Your task to perform on an android device: What's the price of the LG TV? Image 0: 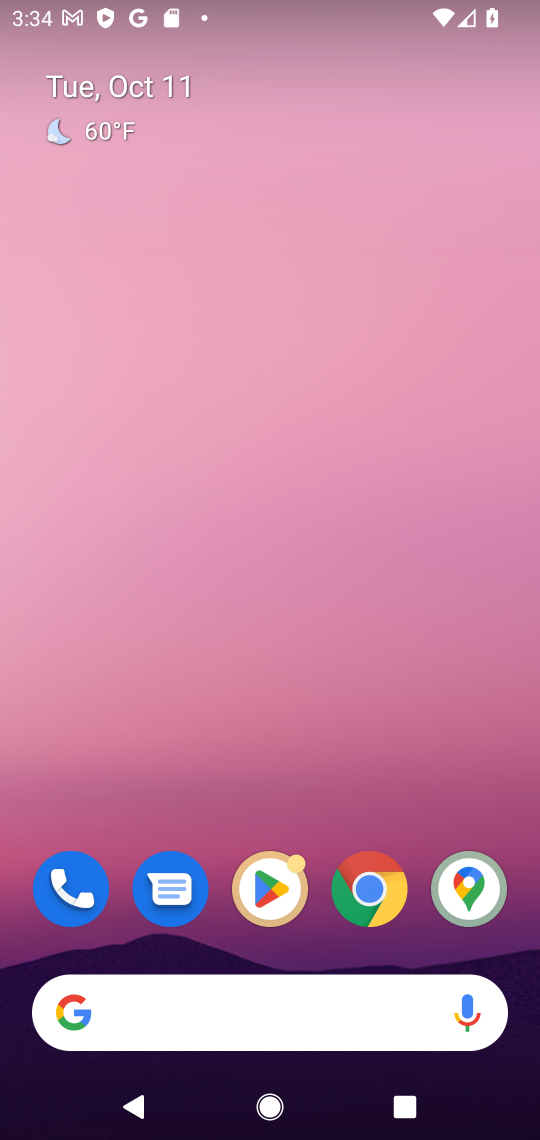
Step 0: drag from (187, 492) to (194, 244)
Your task to perform on an android device: What's the price of the LG TV? Image 1: 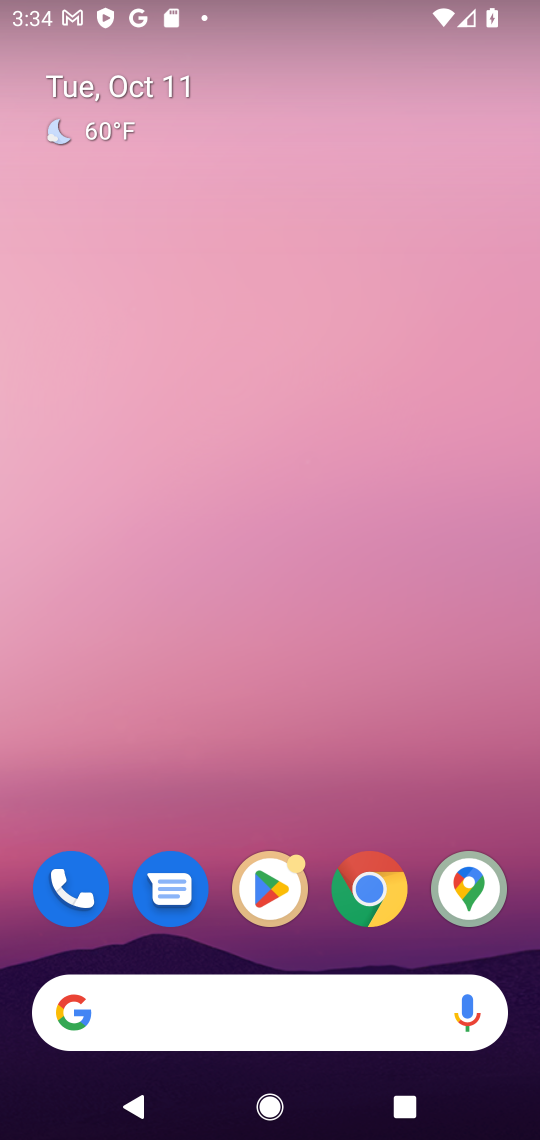
Step 1: drag from (230, 907) to (279, 289)
Your task to perform on an android device: What's the price of the LG TV? Image 2: 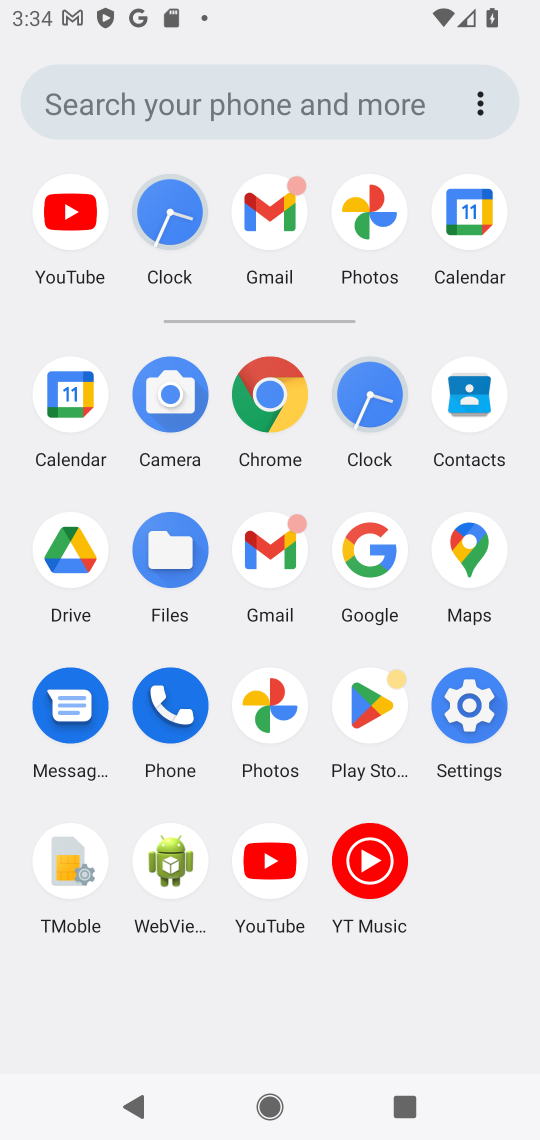
Step 2: click (380, 536)
Your task to perform on an android device: What's the price of the LG TV? Image 3: 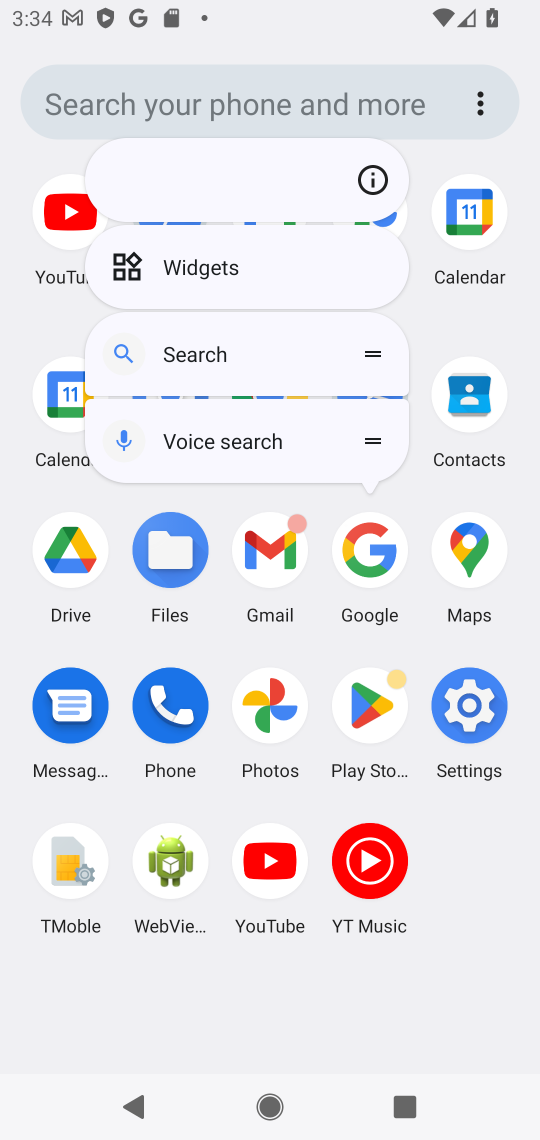
Step 3: click (380, 536)
Your task to perform on an android device: What's the price of the LG TV? Image 4: 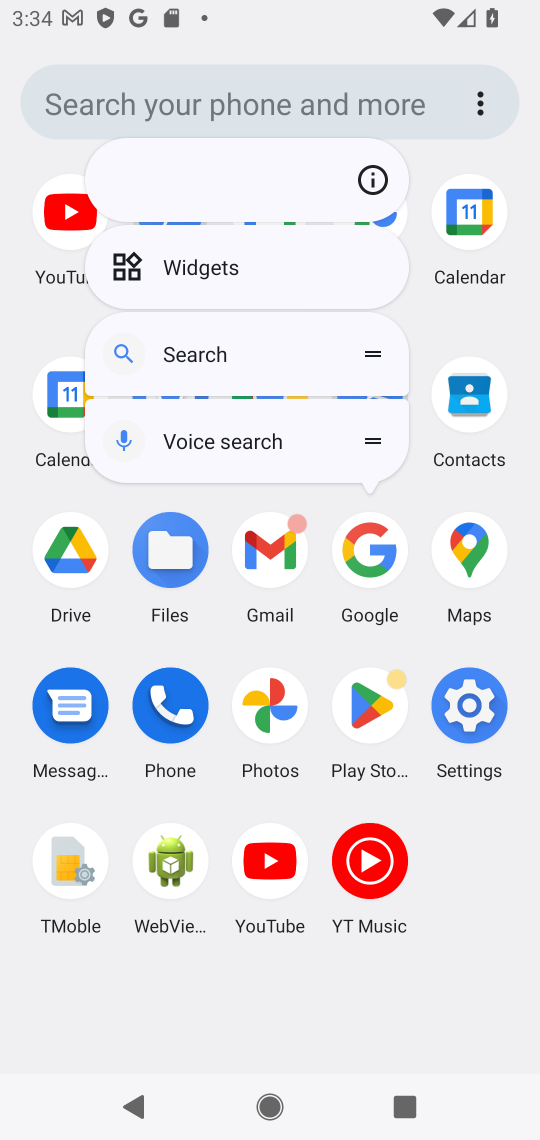
Step 4: click (365, 547)
Your task to perform on an android device: What's the price of the LG TV? Image 5: 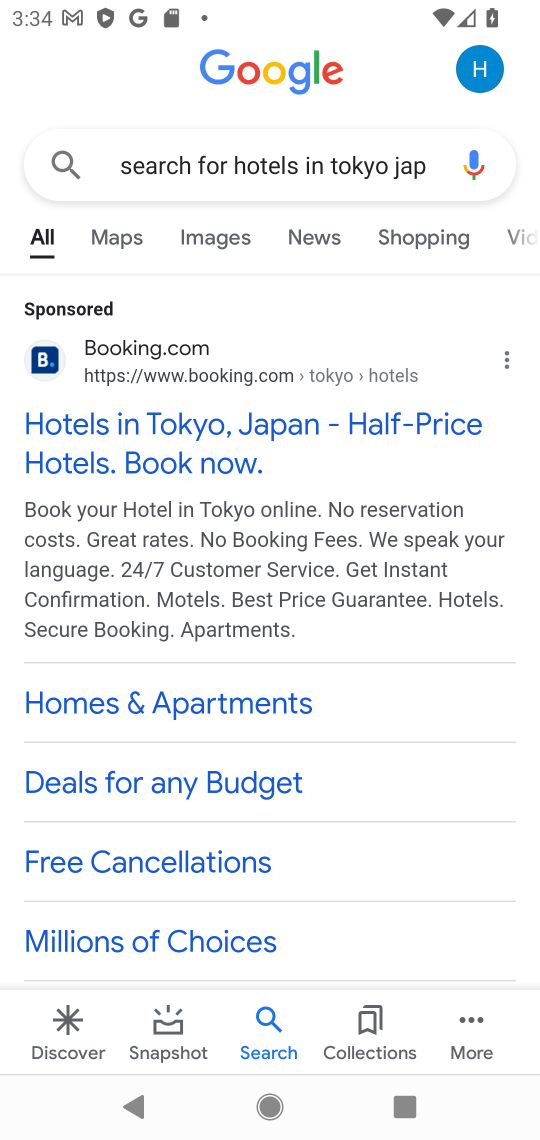
Step 5: click (322, 163)
Your task to perform on an android device: What's the price of the LG TV? Image 6: 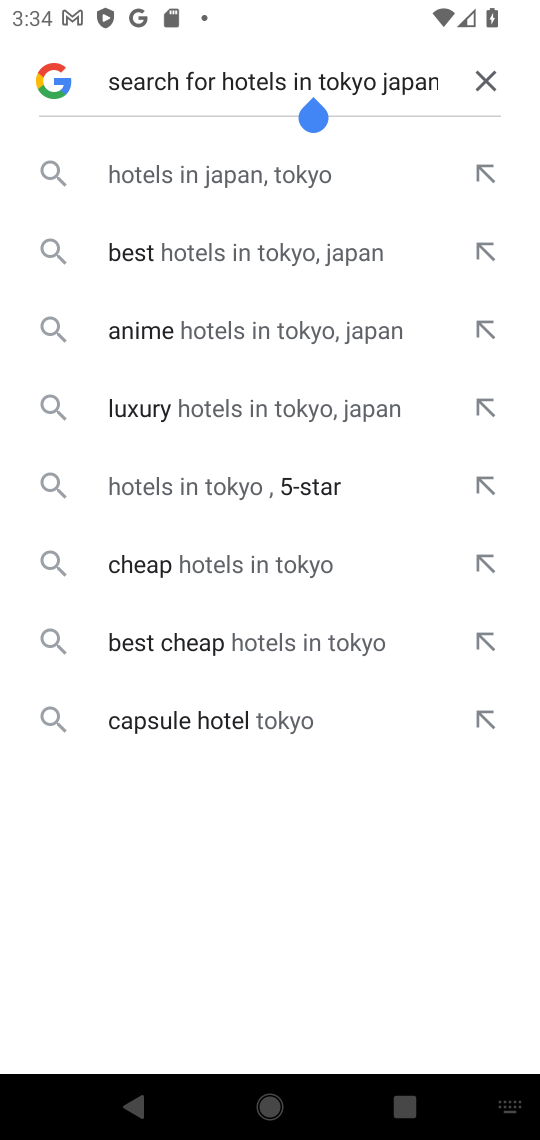
Step 6: click (474, 78)
Your task to perform on an android device: What's the price of the LG TV? Image 7: 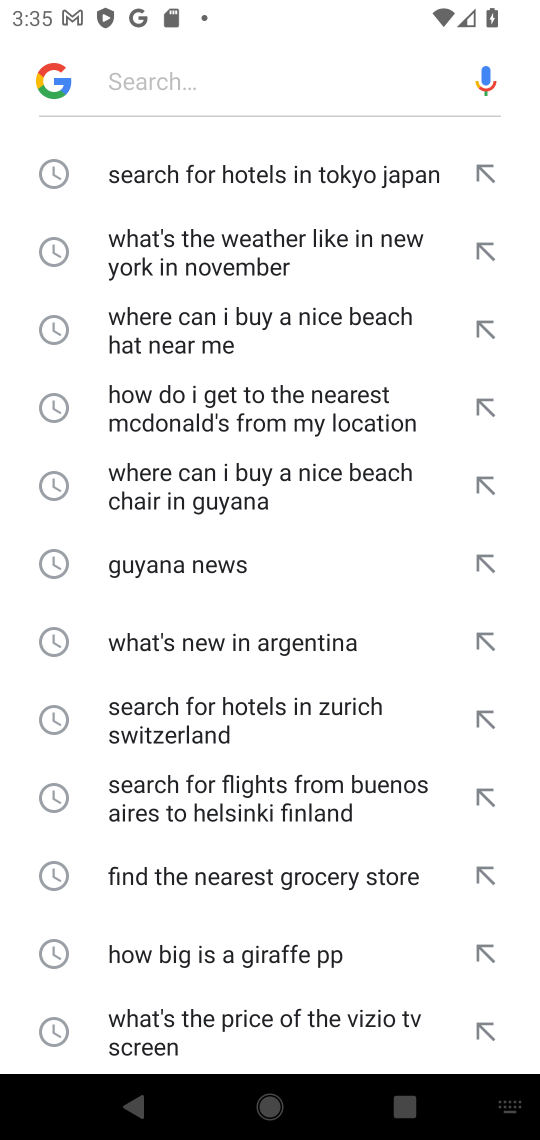
Step 7: click (254, 74)
Your task to perform on an android device: What's the price of the LG TV? Image 8: 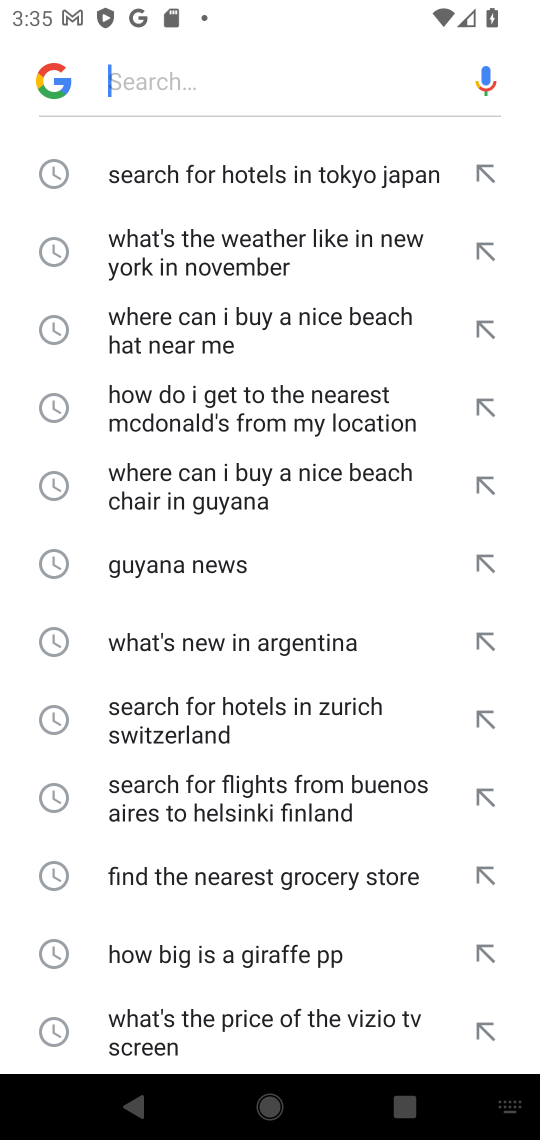
Step 8: type "What's the price of the LG TV? "
Your task to perform on an android device: What's the price of the LG TV? Image 9: 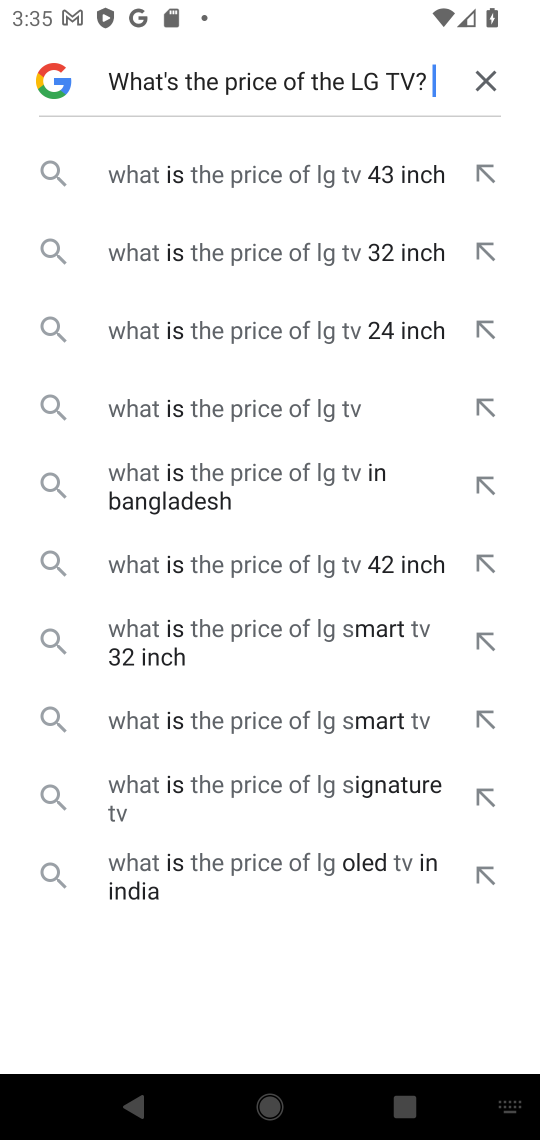
Step 9: click (236, 178)
Your task to perform on an android device: What's the price of the LG TV? Image 10: 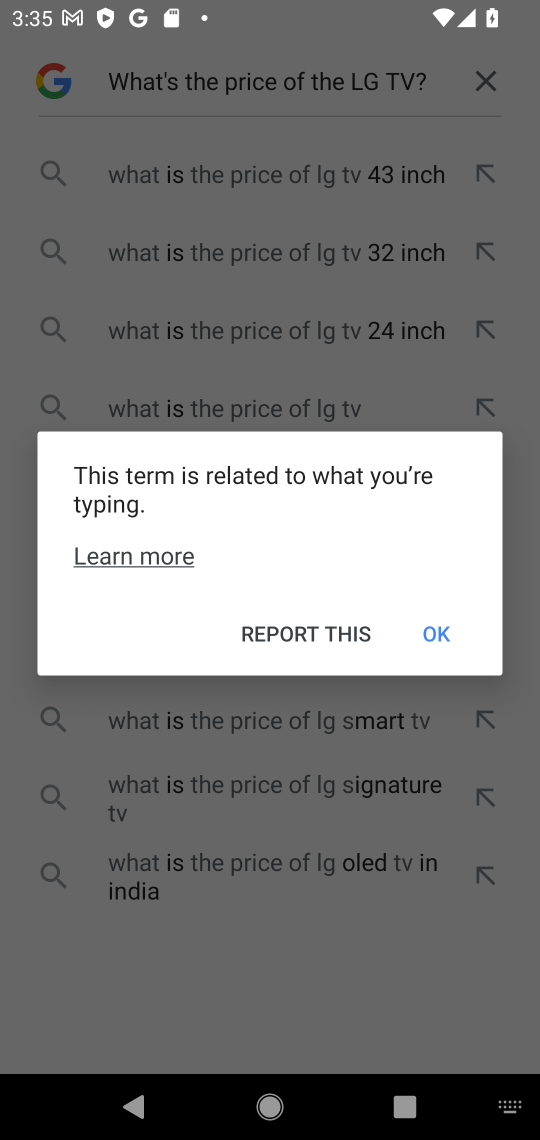
Step 10: click (462, 636)
Your task to perform on an android device: What's the price of the LG TV? Image 11: 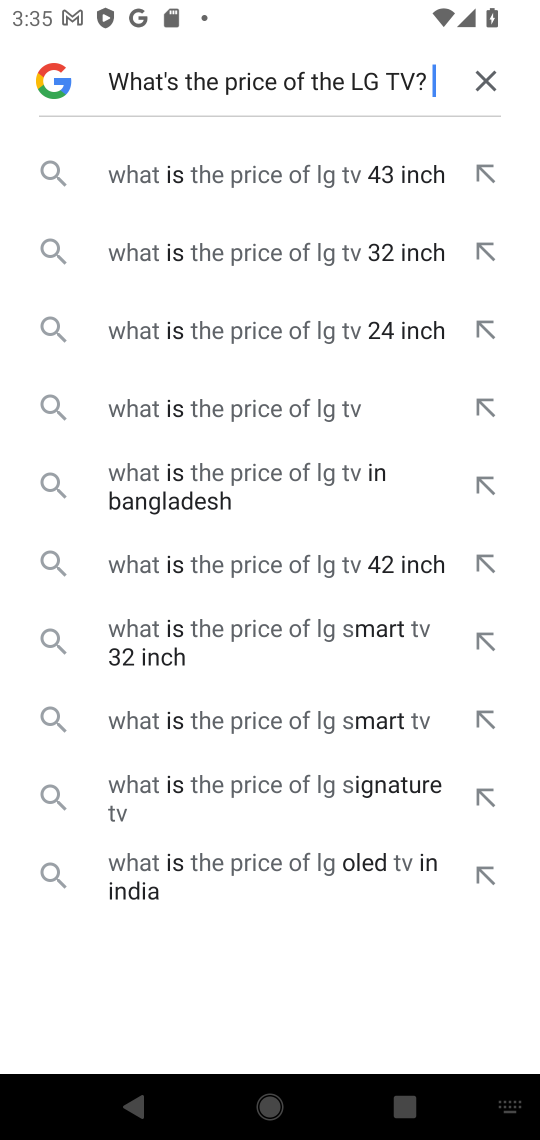
Step 11: drag from (230, 462) to (141, 275)
Your task to perform on an android device: What's the price of the LG TV? Image 12: 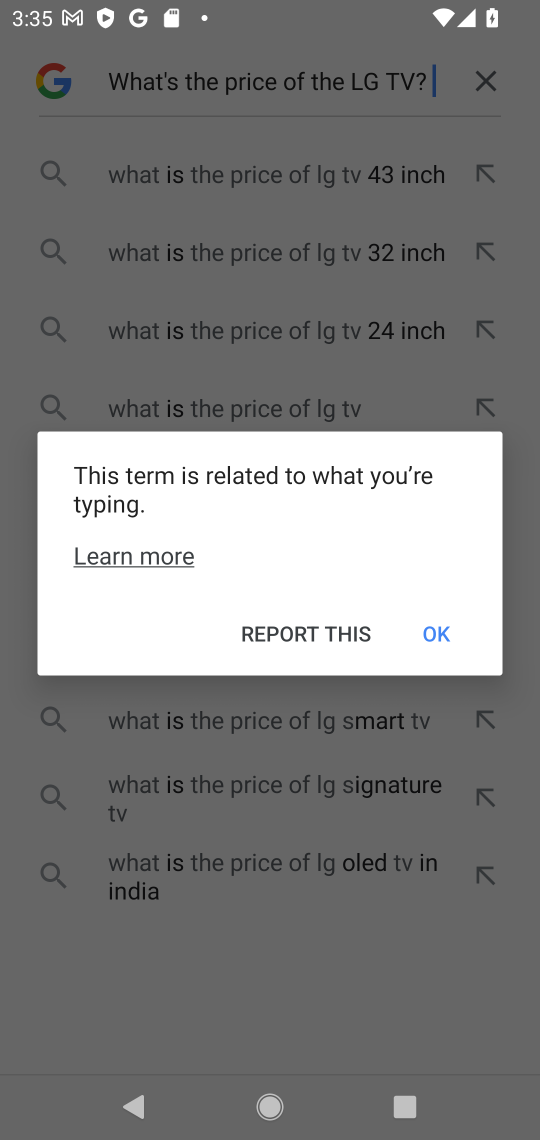
Step 12: click (430, 621)
Your task to perform on an android device: What's the price of the LG TV? Image 13: 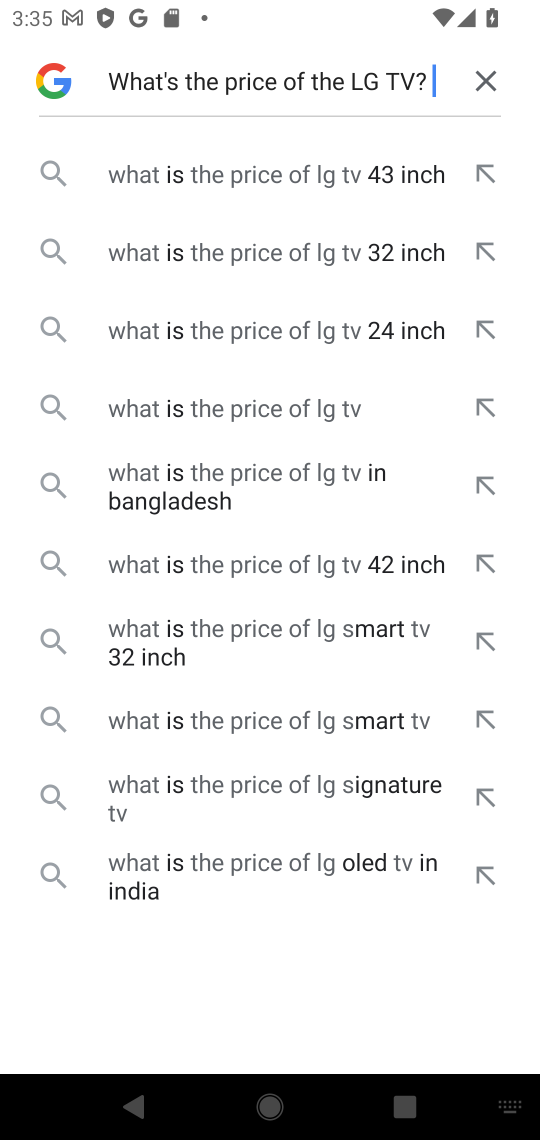
Step 13: click (321, 722)
Your task to perform on an android device: What's the price of the LG TV? Image 14: 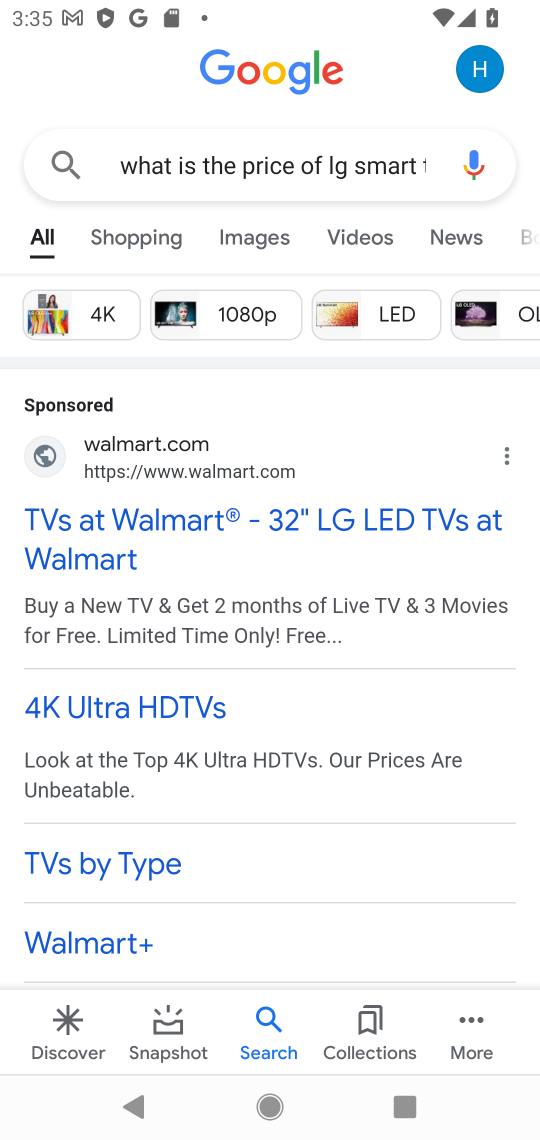
Step 14: click (142, 518)
Your task to perform on an android device: What's the price of the LG TV? Image 15: 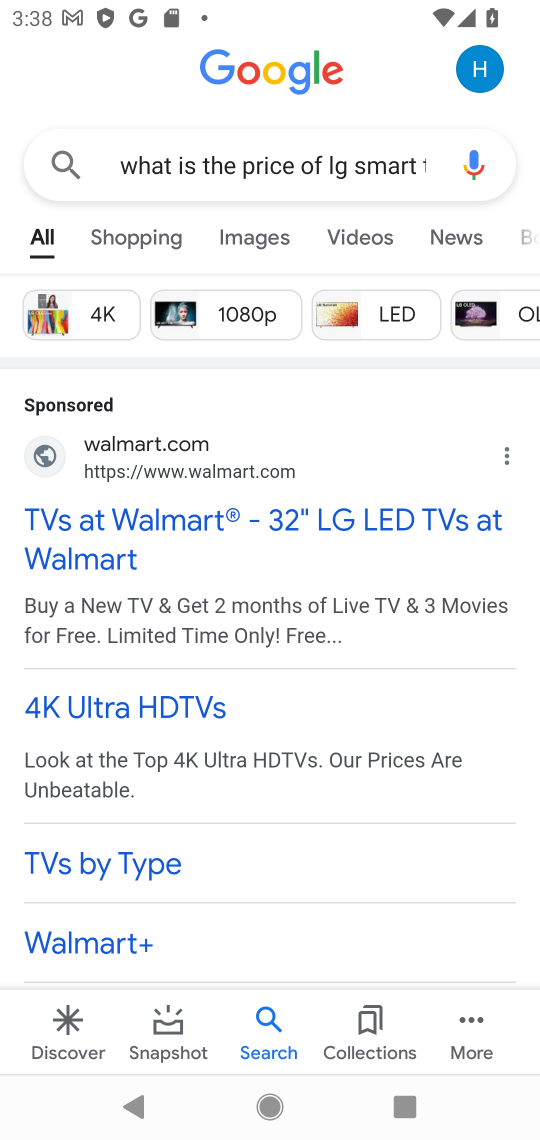
Step 15: click (142, 518)
Your task to perform on an android device: What's the price of the LG TV? Image 16: 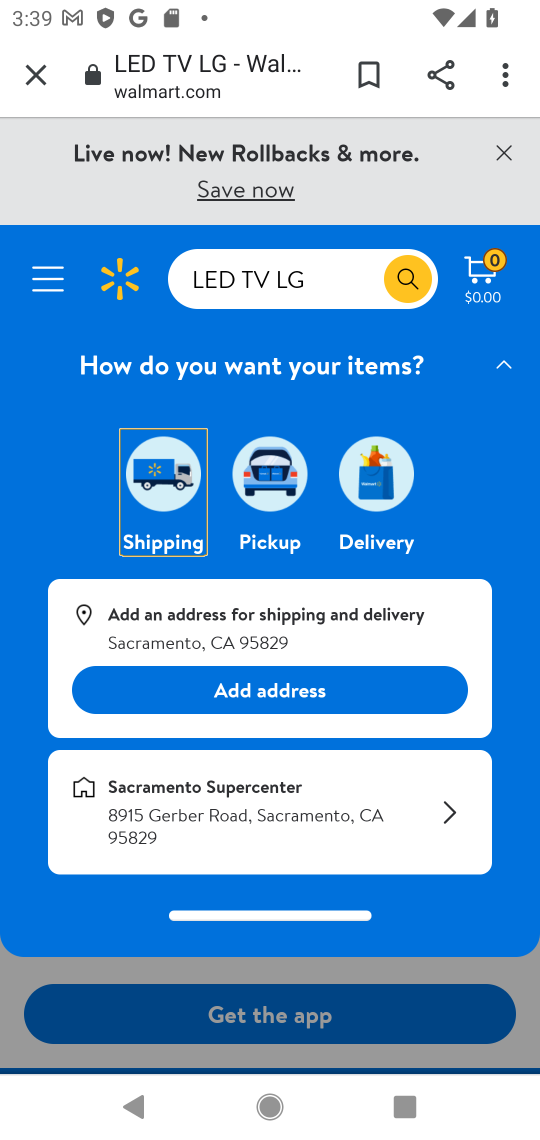
Step 16: task complete